Your task to perform on an android device: Open Google Maps Image 0: 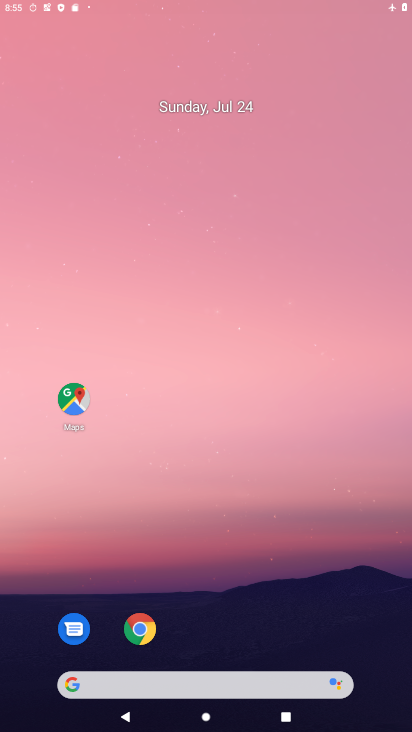
Step 0: drag from (249, 653) to (241, 160)
Your task to perform on an android device: Open Google Maps Image 1: 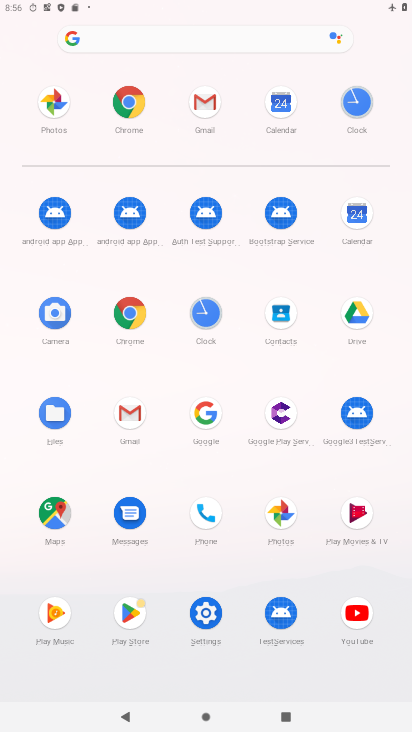
Step 1: click (62, 522)
Your task to perform on an android device: Open Google Maps Image 2: 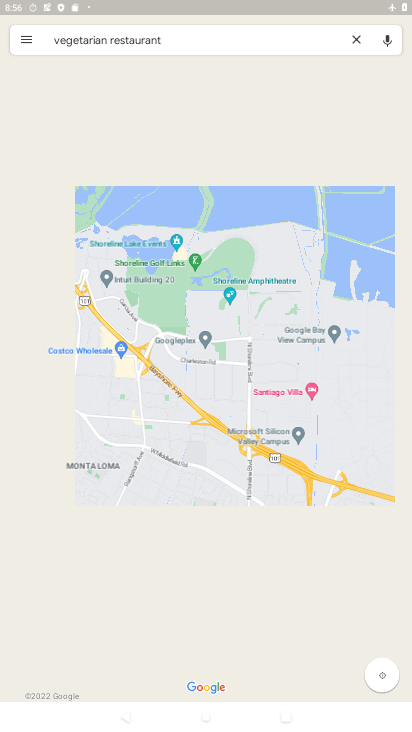
Step 2: task complete